Your task to perform on an android device: turn on notifications settings in the gmail app Image 0: 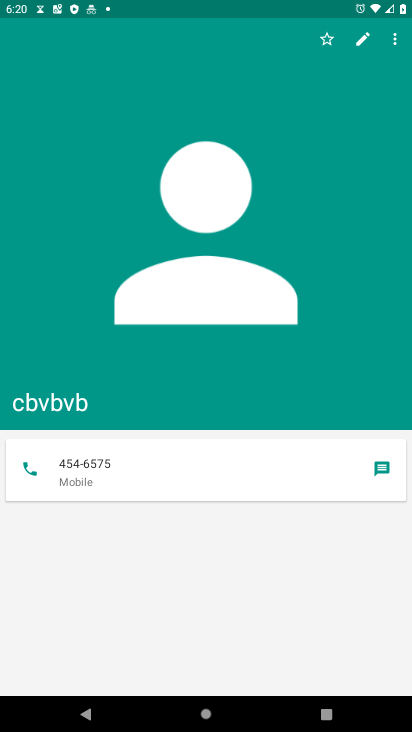
Step 0: press home button
Your task to perform on an android device: turn on notifications settings in the gmail app Image 1: 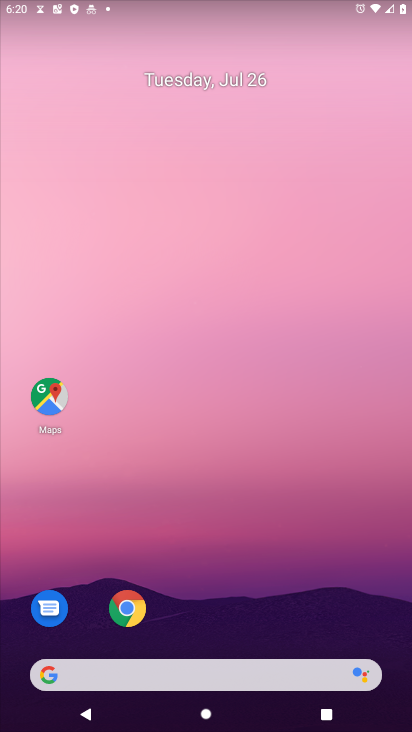
Step 1: drag from (192, 614) to (140, 192)
Your task to perform on an android device: turn on notifications settings in the gmail app Image 2: 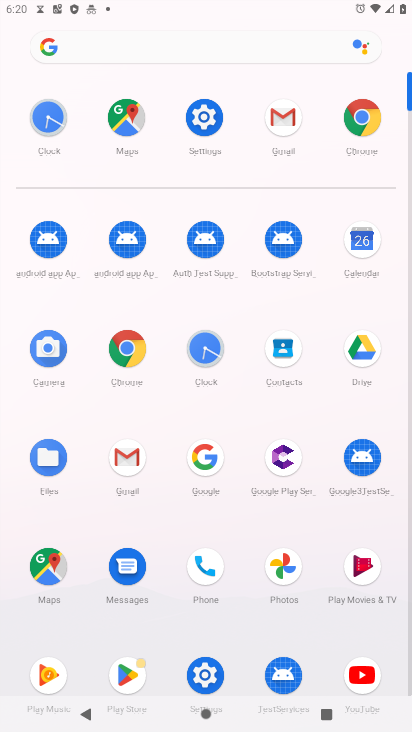
Step 2: click (282, 108)
Your task to perform on an android device: turn on notifications settings in the gmail app Image 3: 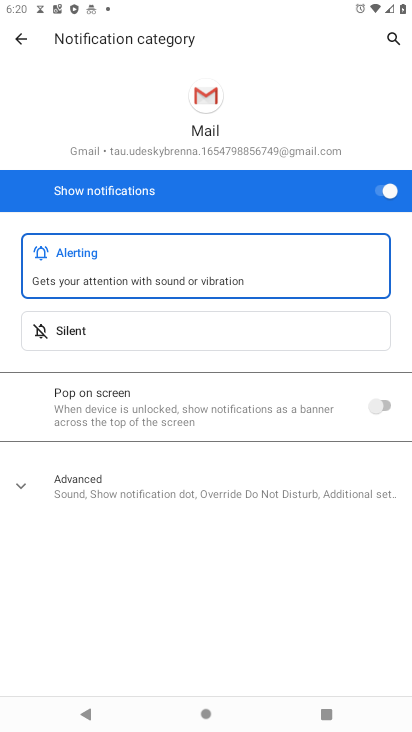
Step 3: task complete